Your task to perform on an android device: toggle notification dots Image 0: 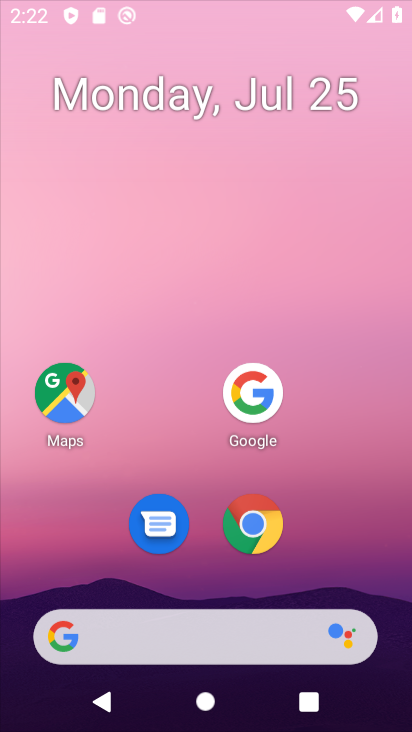
Step 0: press home button
Your task to perform on an android device: toggle notification dots Image 1: 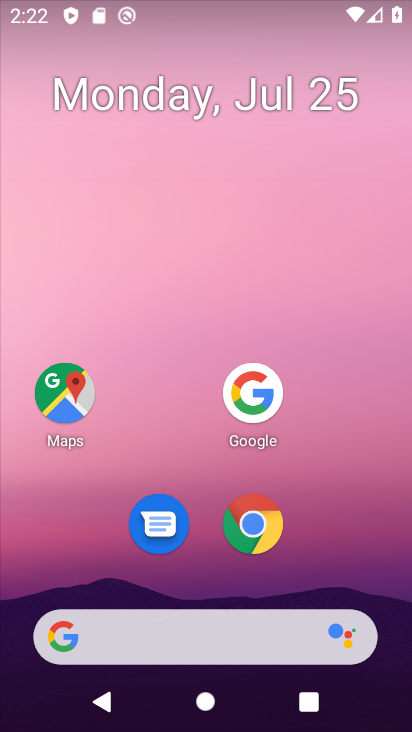
Step 1: drag from (177, 649) to (331, 22)
Your task to perform on an android device: toggle notification dots Image 2: 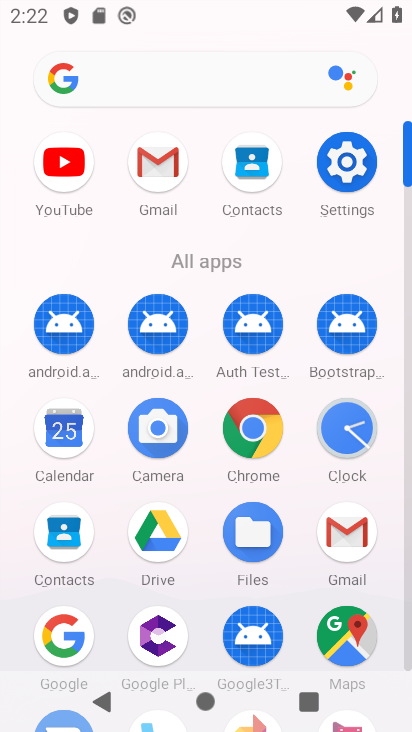
Step 2: click (344, 159)
Your task to perform on an android device: toggle notification dots Image 3: 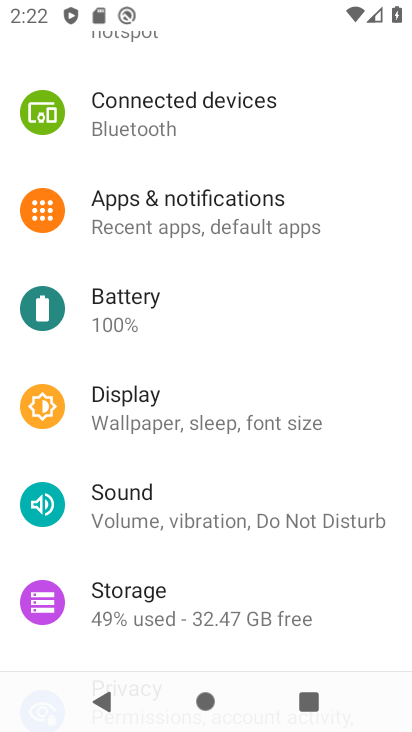
Step 3: click (234, 203)
Your task to perform on an android device: toggle notification dots Image 4: 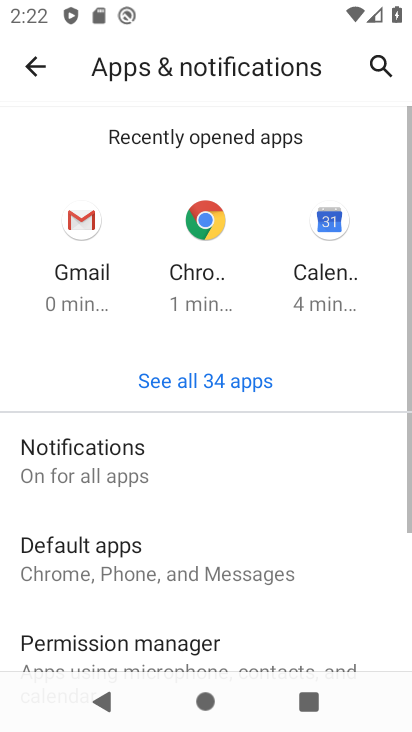
Step 4: click (112, 461)
Your task to perform on an android device: toggle notification dots Image 5: 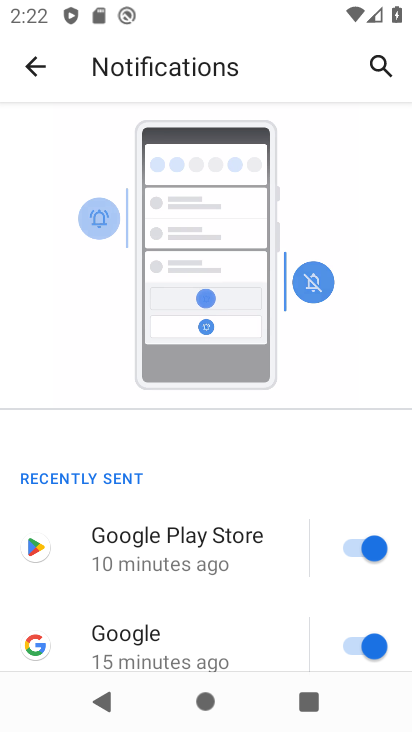
Step 5: drag from (243, 613) to (342, 160)
Your task to perform on an android device: toggle notification dots Image 6: 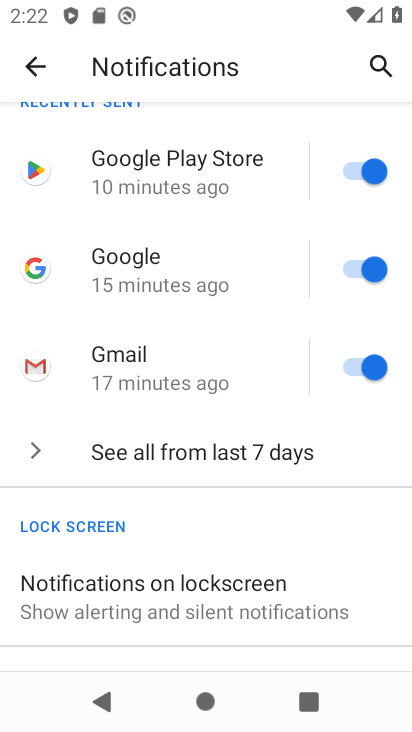
Step 6: drag from (278, 559) to (380, 66)
Your task to perform on an android device: toggle notification dots Image 7: 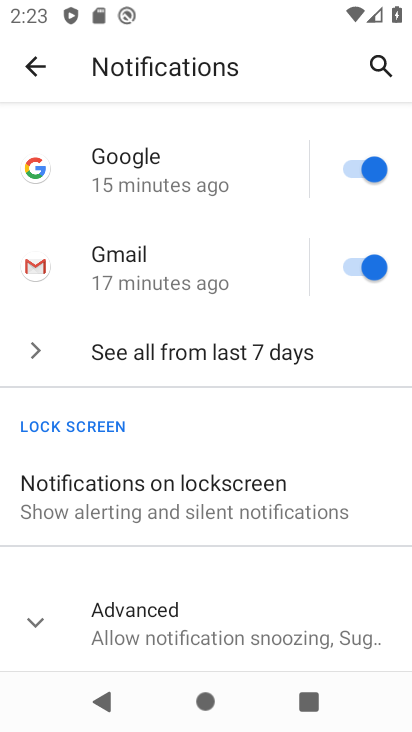
Step 7: click (167, 629)
Your task to perform on an android device: toggle notification dots Image 8: 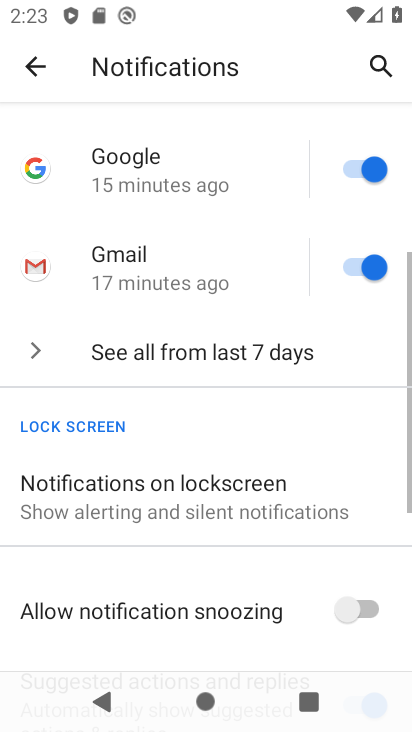
Step 8: drag from (267, 597) to (341, 155)
Your task to perform on an android device: toggle notification dots Image 9: 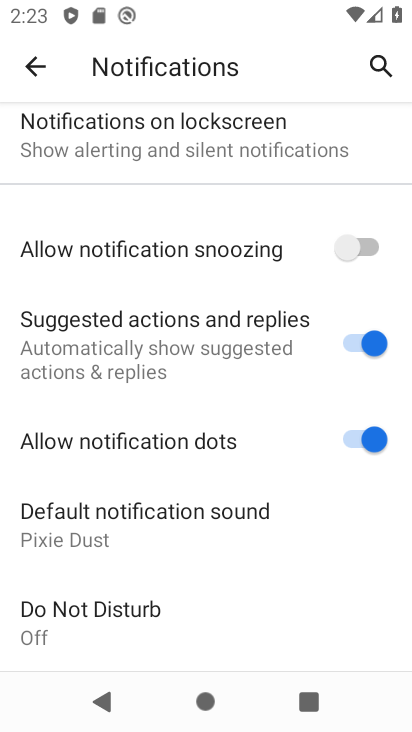
Step 9: click (356, 437)
Your task to perform on an android device: toggle notification dots Image 10: 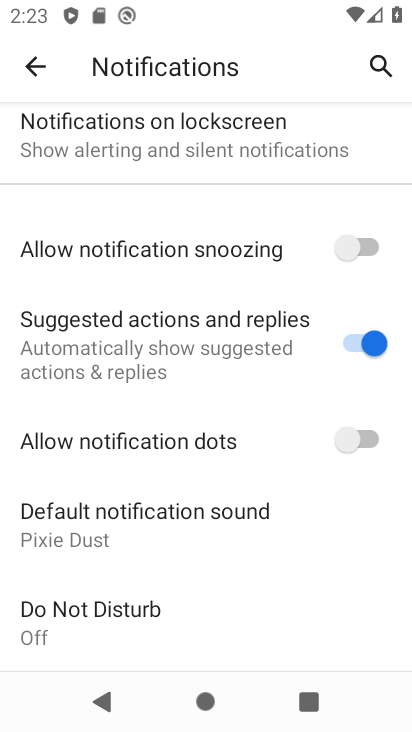
Step 10: task complete